Your task to perform on an android device: Empty the shopping cart on amazon. Search for logitech g pro on amazon, select the first entry, and add it to the cart. Image 0: 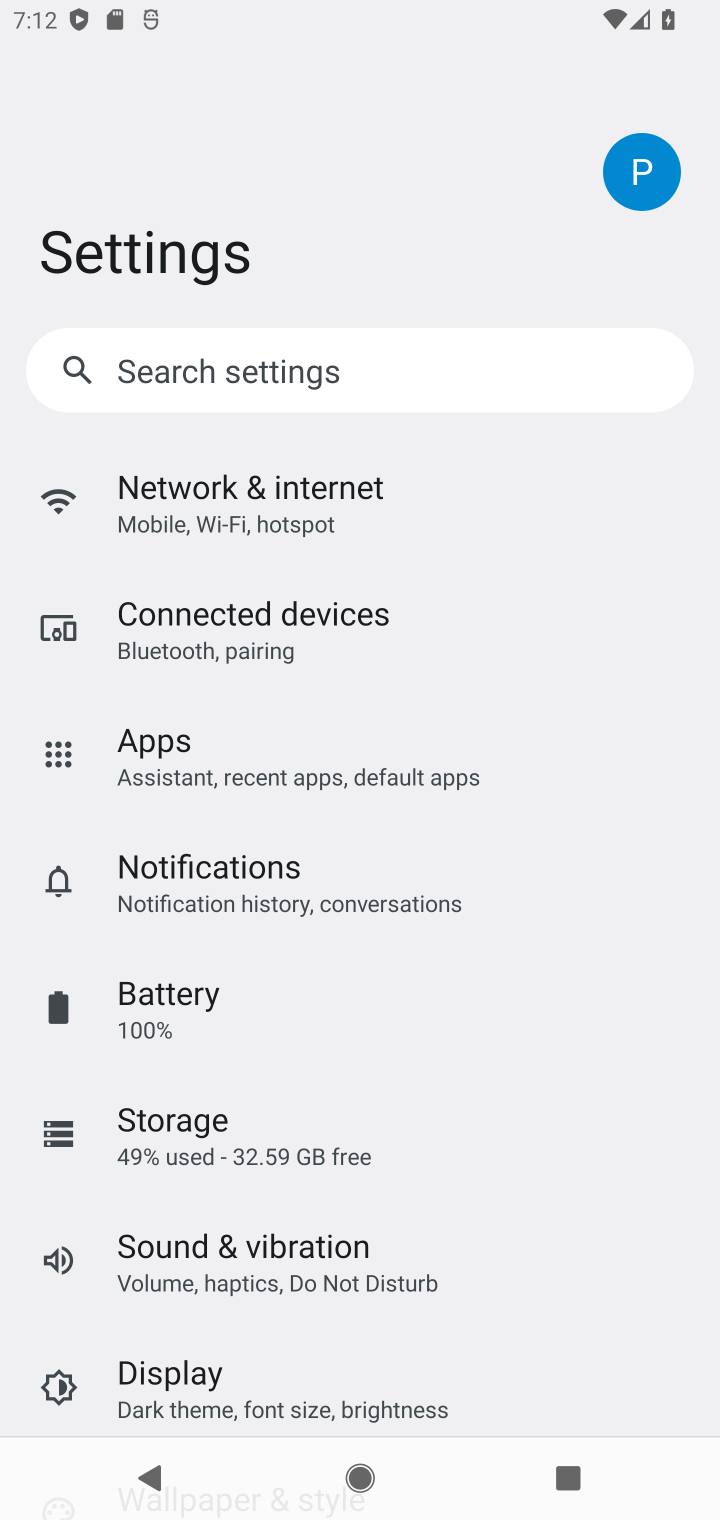
Step 0: press home button
Your task to perform on an android device: Empty the shopping cart on amazon. Search for logitech g pro on amazon, select the first entry, and add it to the cart. Image 1: 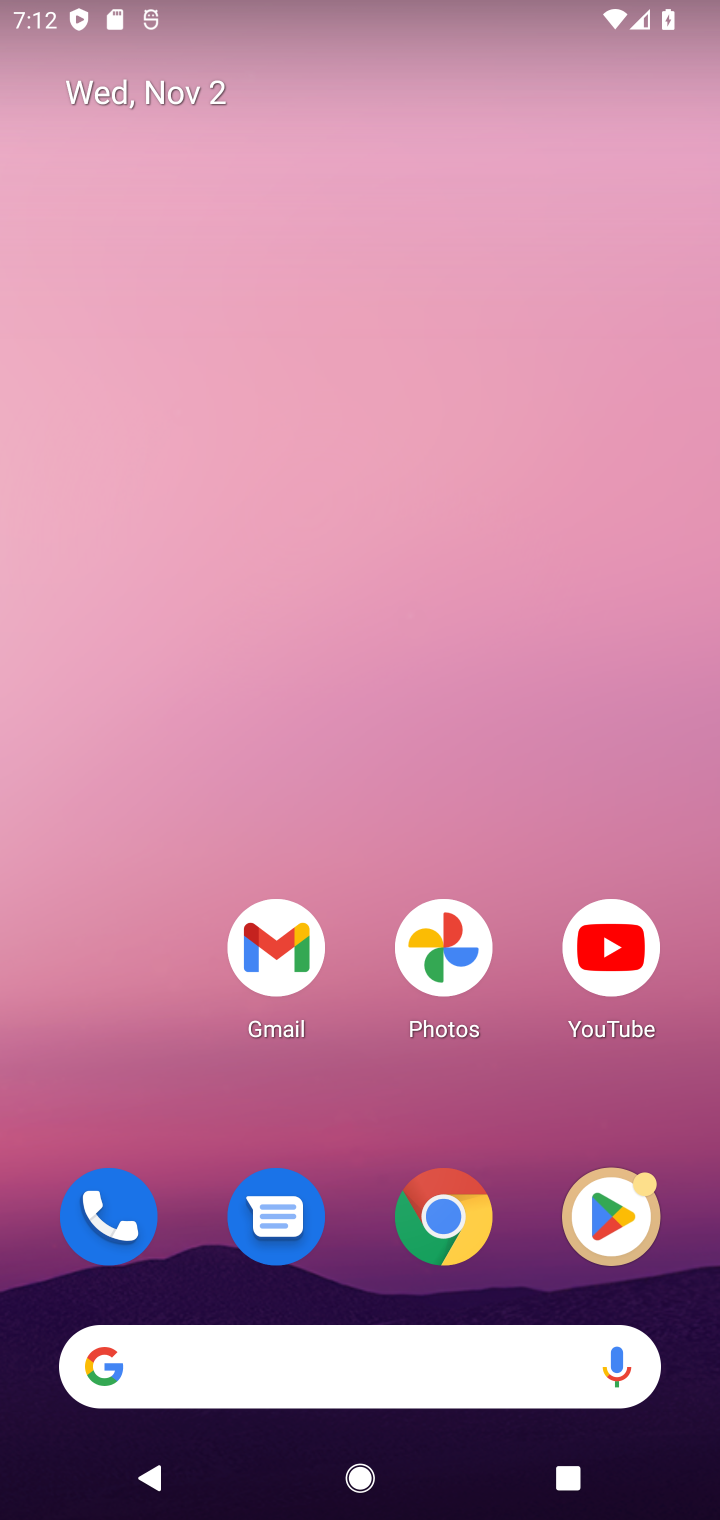
Step 1: click (421, 1235)
Your task to perform on an android device: Empty the shopping cart on amazon. Search for logitech g pro on amazon, select the first entry, and add it to the cart. Image 2: 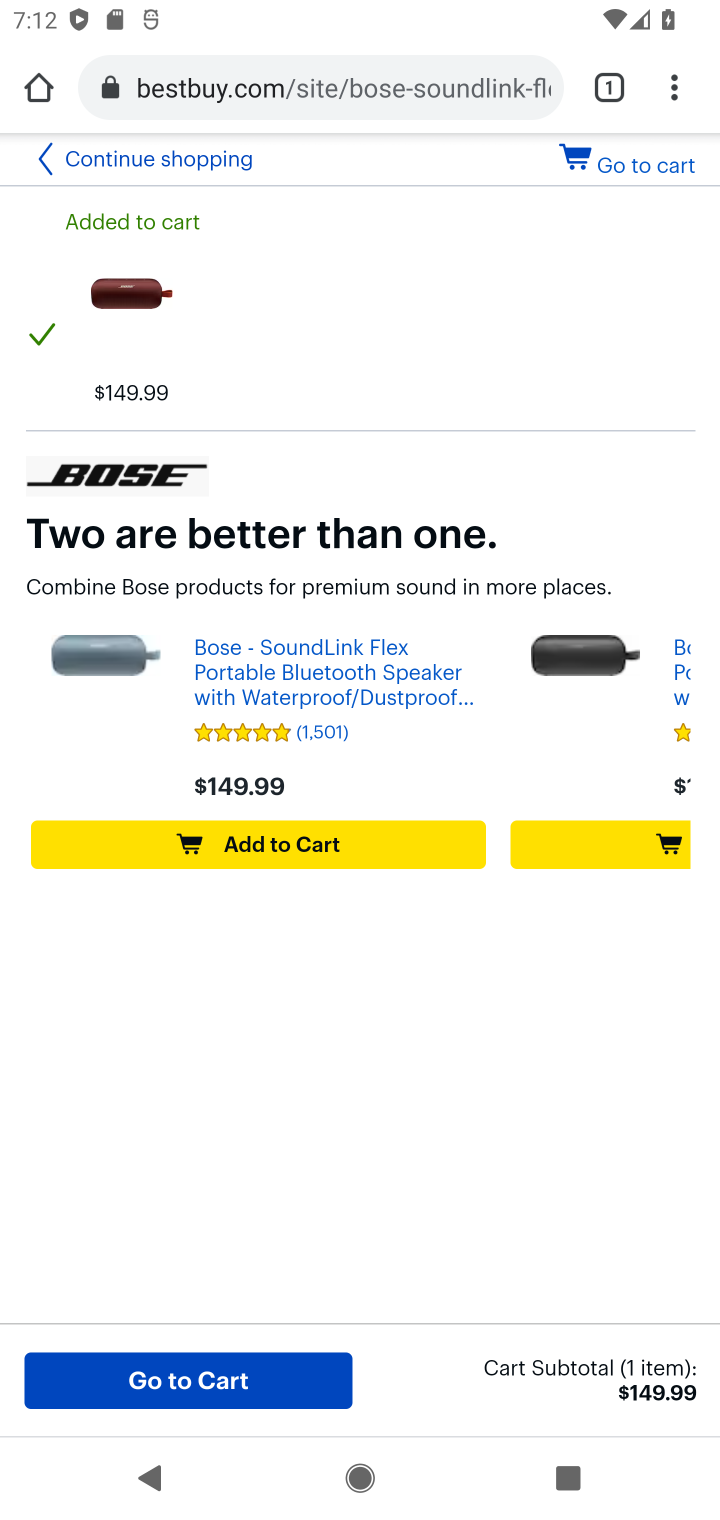
Step 2: click (340, 104)
Your task to perform on an android device: Empty the shopping cart on amazon. Search for logitech g pro on amazon, select the first entry, and add it to the cart. Image 3: 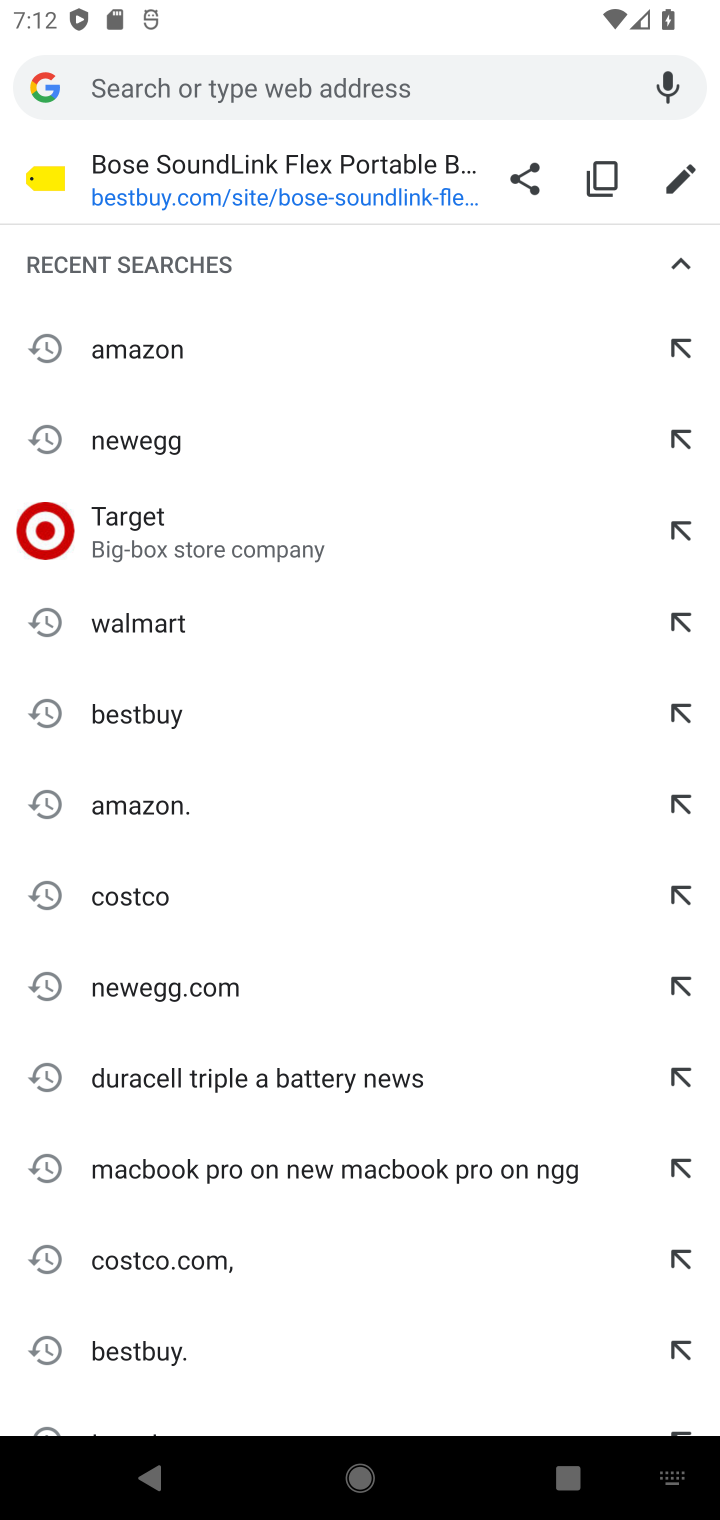
Step 3: type "amazon"
Your task to perform on an android device: Empty the shopping cart on amazon. Search for logitech g pro on amazon, select the first entry, and add it to the cart. Image 4: 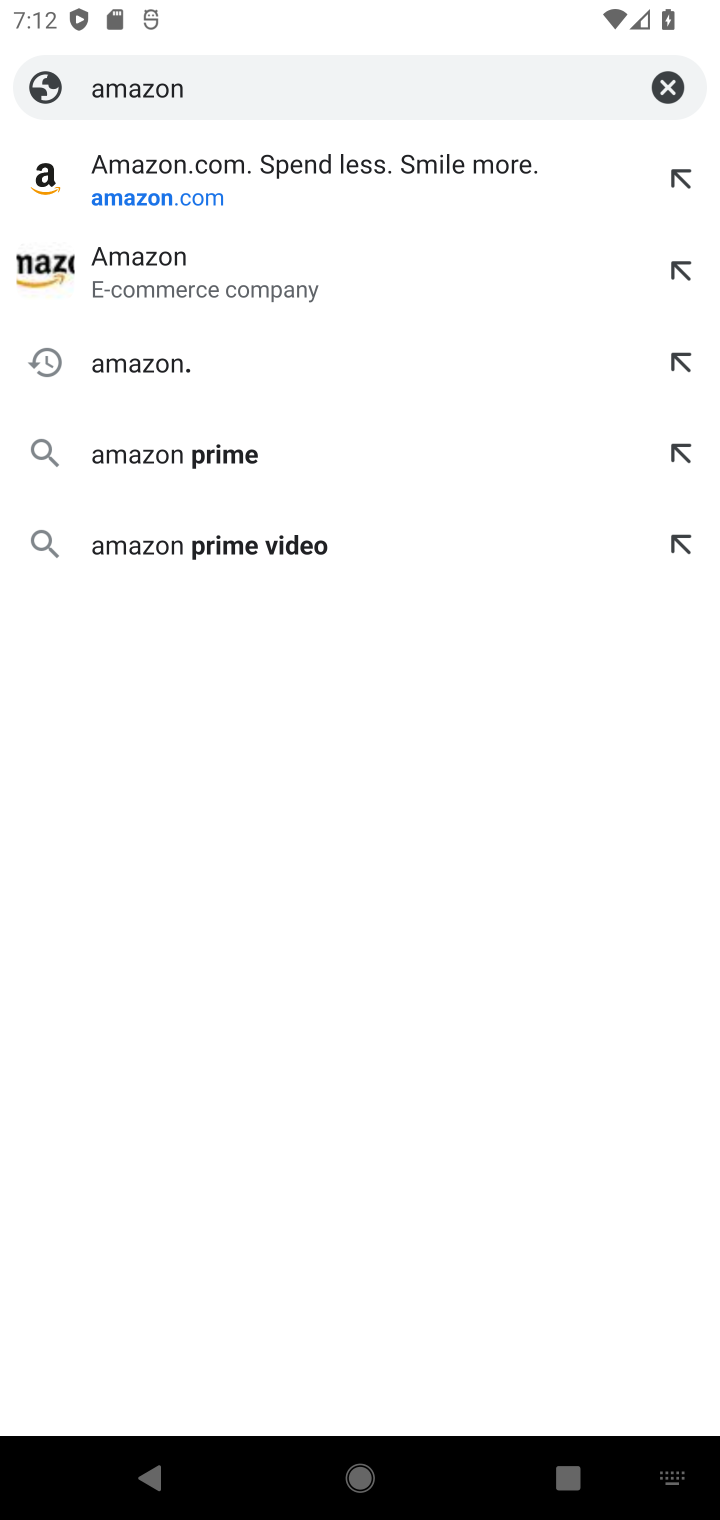
Step 4: click (211, 194)
Your task to perform on an android device: Empty the shopping cart on amazon. Search for logitech g pro on amazon, select the first entry, and add it to the cart. Image 5: 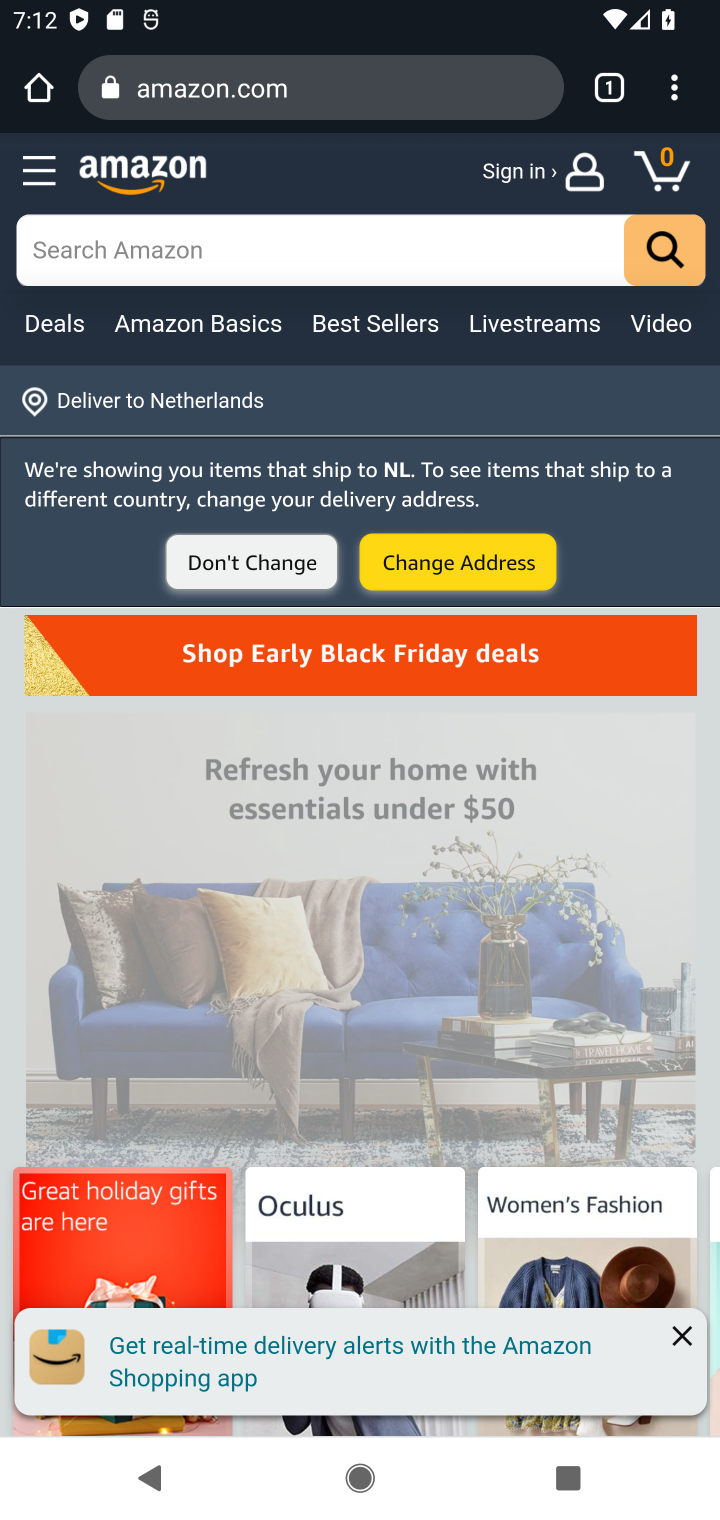
Step 5: click (343, 262)
Your task to perform on an android device: Empty the shopping cart on amazon. Search for logitech g pro on amazon, select the first entry, and add it to the cart. Image 6: 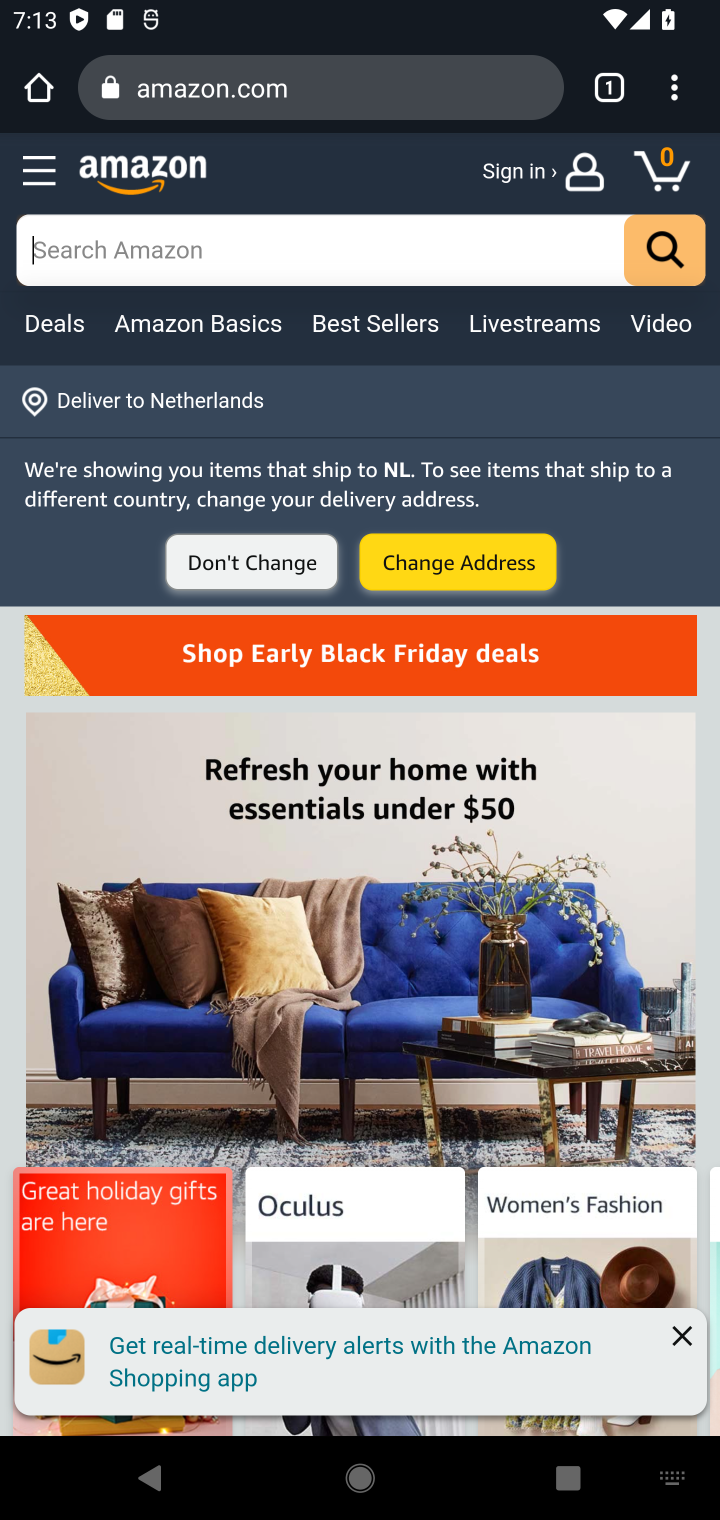
Step 6: type "logictech g pro"
Your task to perform on an android device: Empty the shopping cart on amazon. Search for logitech g pro on amazon, select the first entry, and add it to the cart. Image 7: 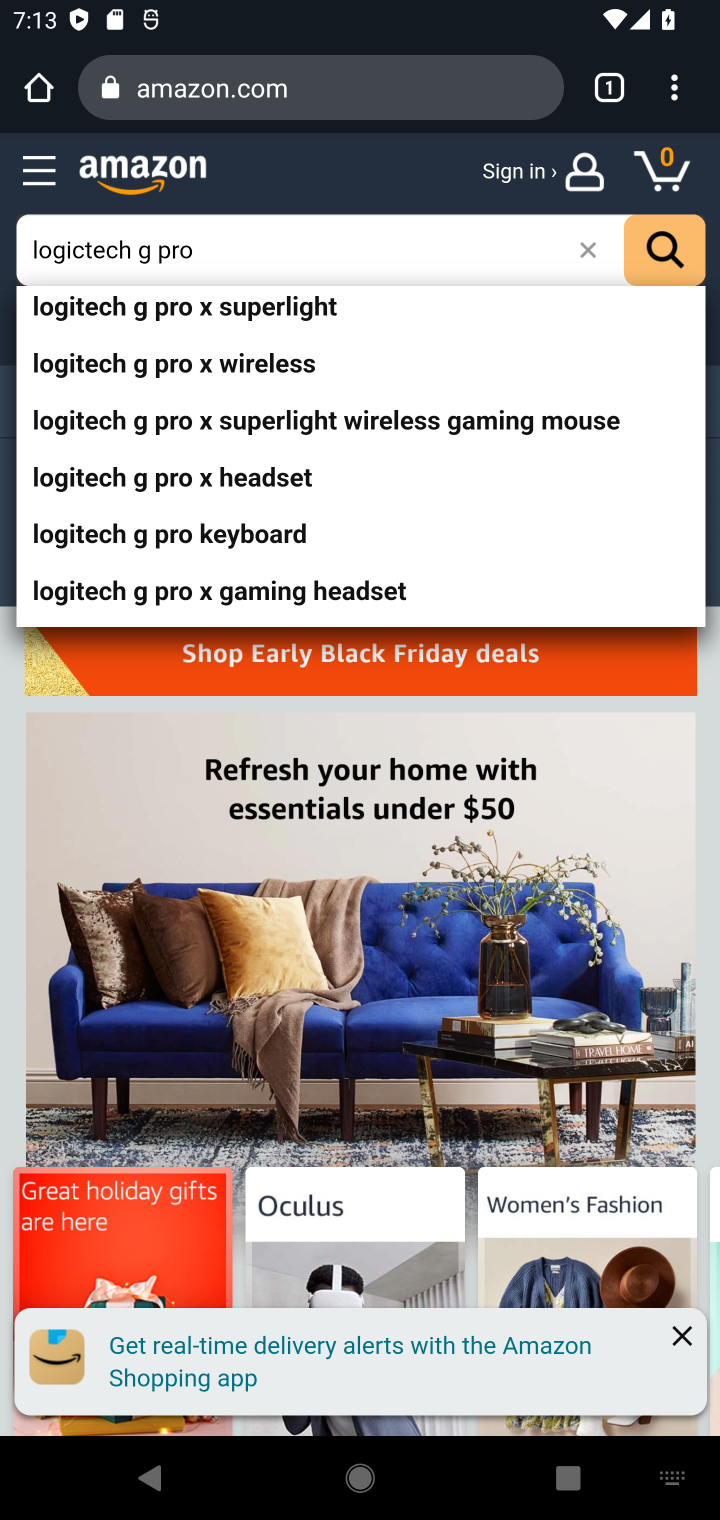
Step 7: press enter
Your task to perform on an android device: Empty the shopping cart on amazon. Search for logitech g pro on amazon, select the first entry, and add it to the cart. Image 8: 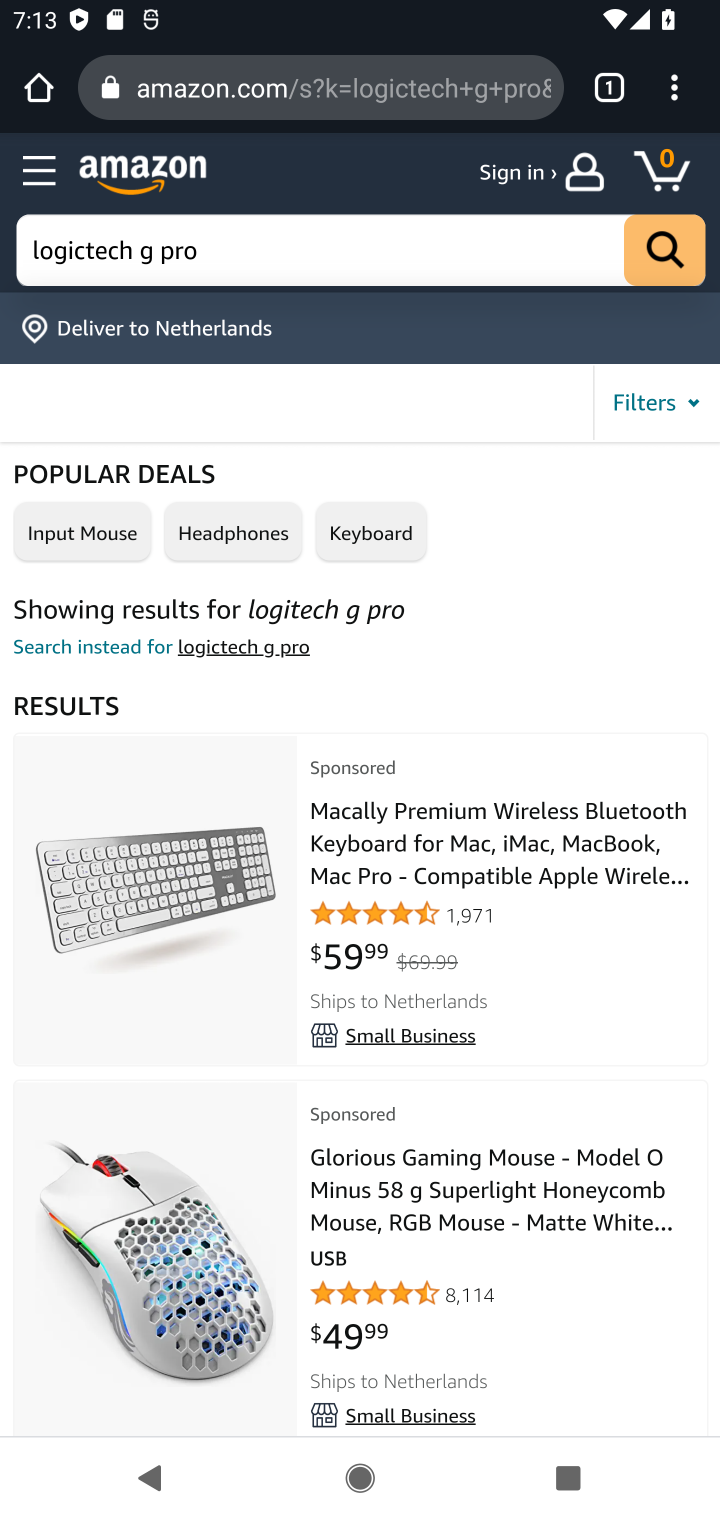
Step 8: drag from (537, 1207) to (616, 497)
Your task to perform on an android device: Empty the shopping cart on amazon. Search for logitech g pro on amazon, select the first entry, and add it to the cart. Image 9: 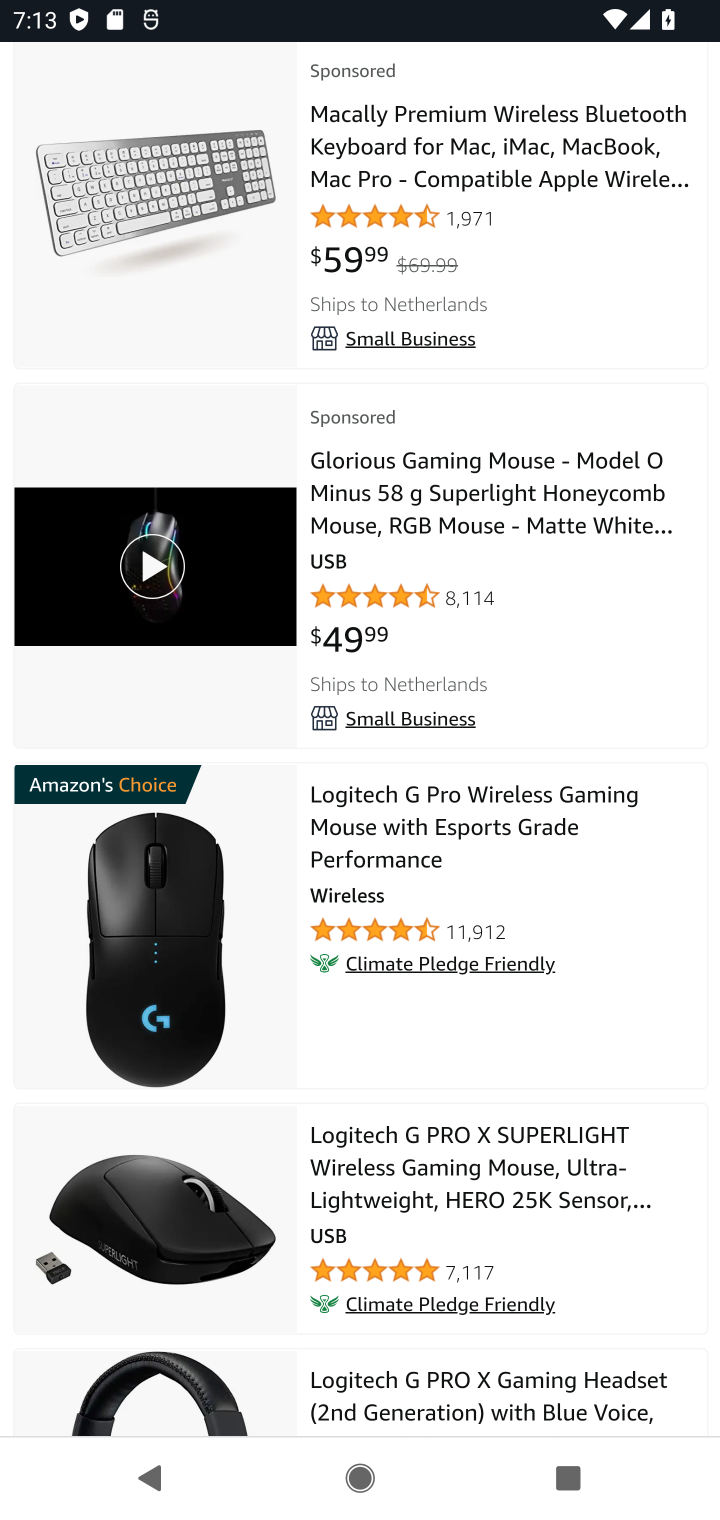
Step 9: click (156, 899)
Your task to perform on an android device: Empty the shopping cart on amazon. Search for logitech g pro on amazon, select the first entry, and add it to the cart. Image 10: 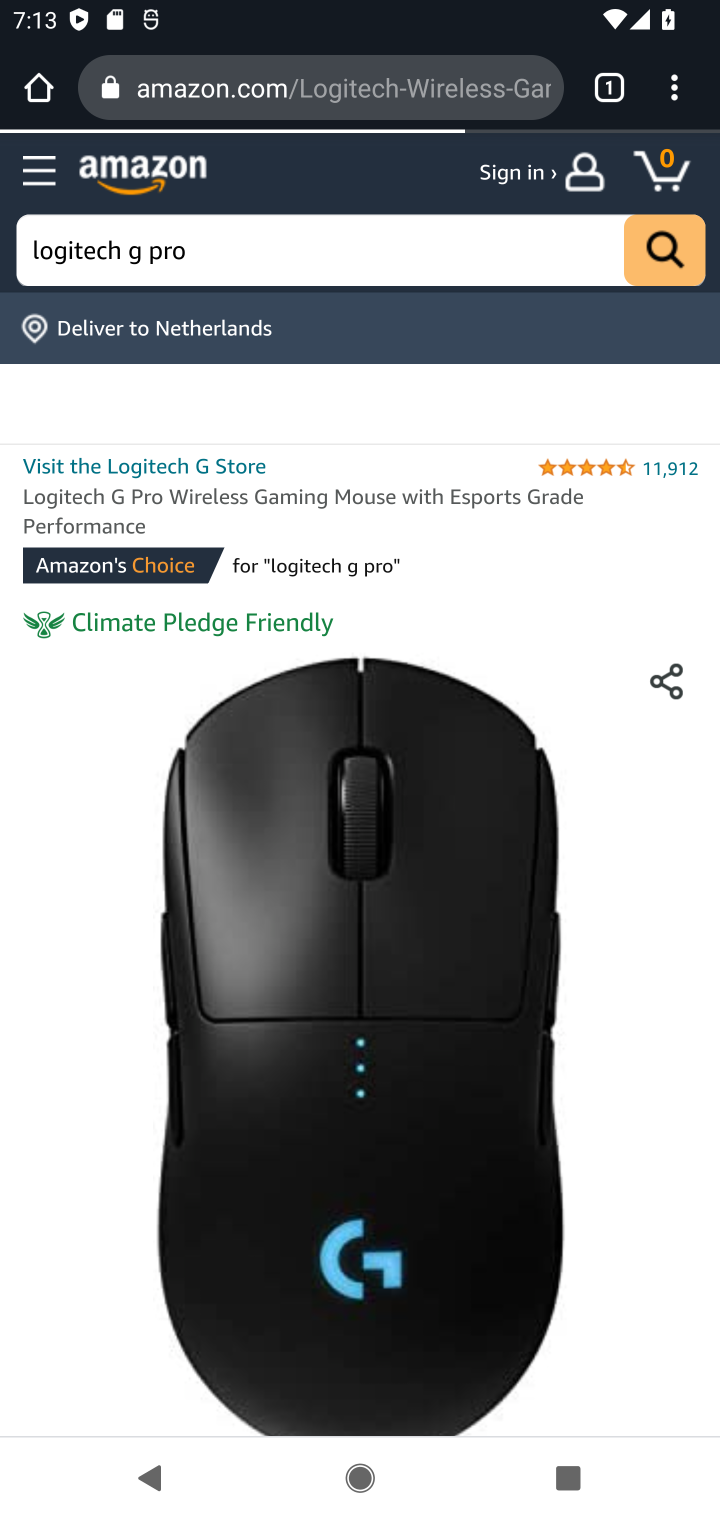
Step 10: drag from (613, 1310) to (638, 424)
Your task to perform on an android device: Empty the shopping cart on amazon. Search for logitech g pro on amazon, select the first entry, and add it to the cart. Image 11: 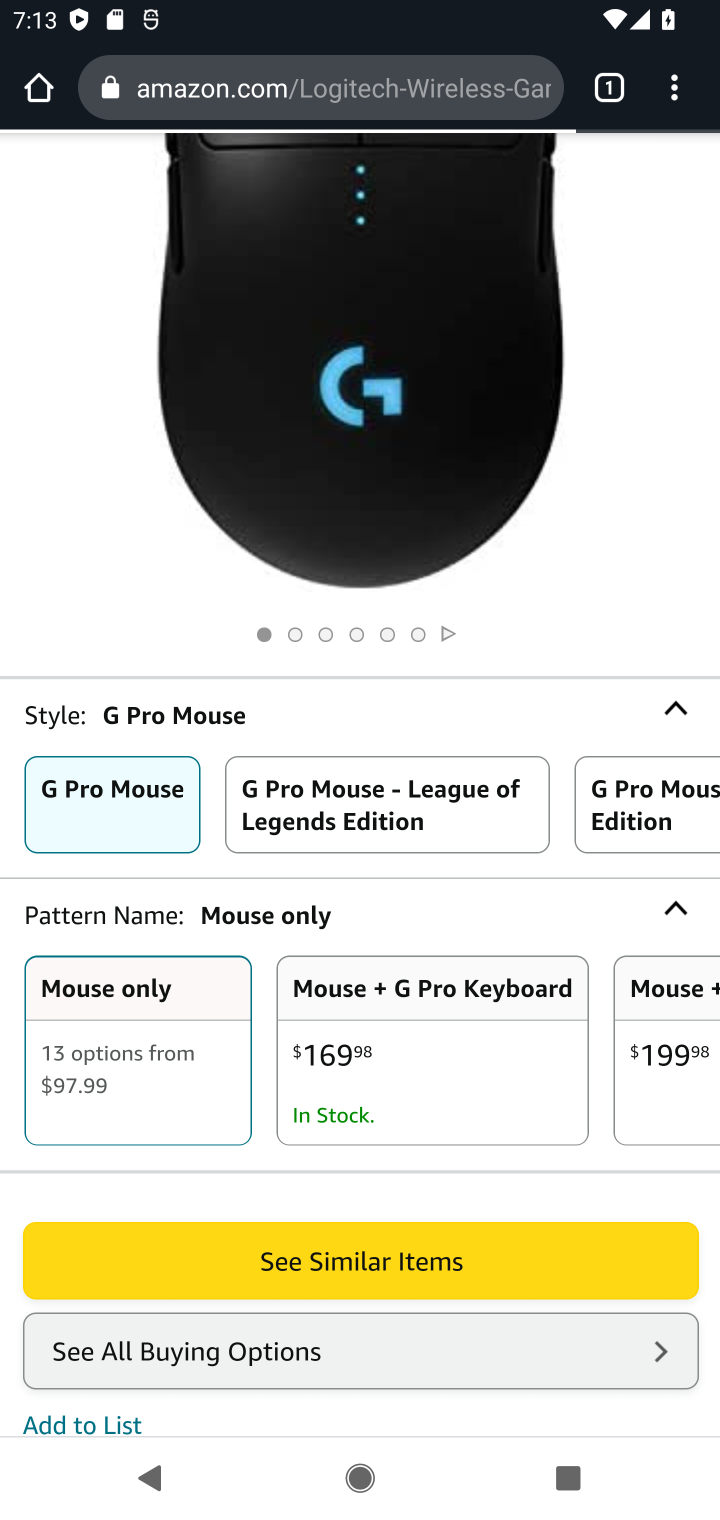
Step 11: click (466, 557)
Your task to perform on an android device: Empty the shopping cart on amazon. Search for logitech g pro on amazon, select the first entry, and add it to the cart. Image 12: 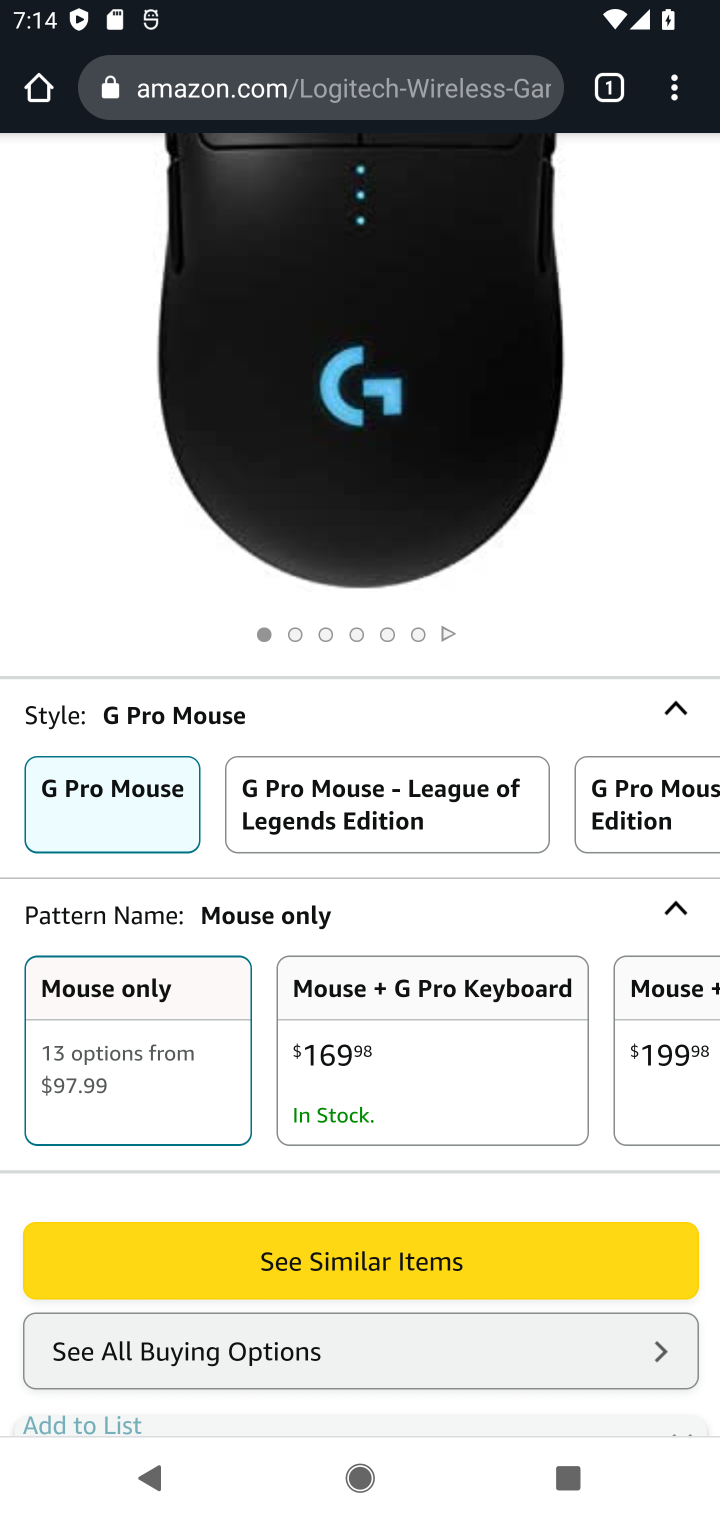
Step 12: task complete